Your task to perform on an android device: clear all cookies in the chrome app Image 0: 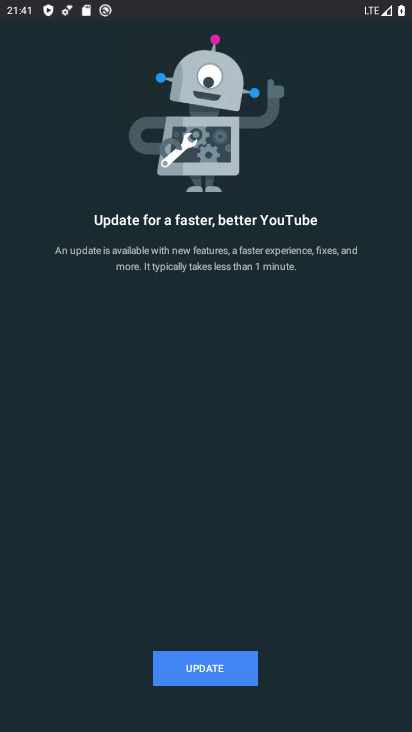
Step 0: press home button
Your task to perform on an android device: clear all cookies in the chrome app Image 1: 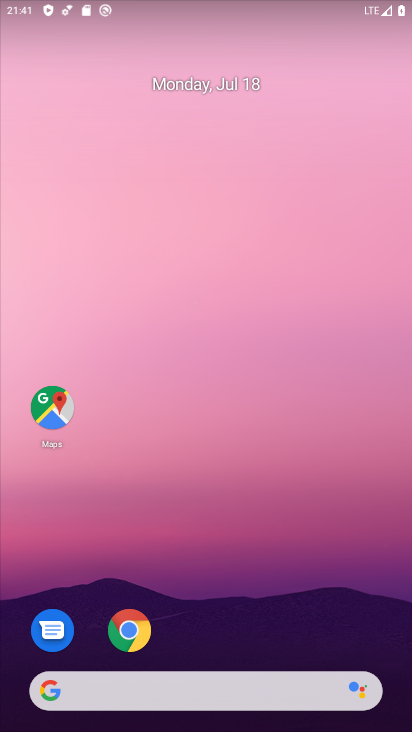
Step 1: click (131, 630)
Your task to perform on an android device: clear all cookies in the chrome app Image 2: 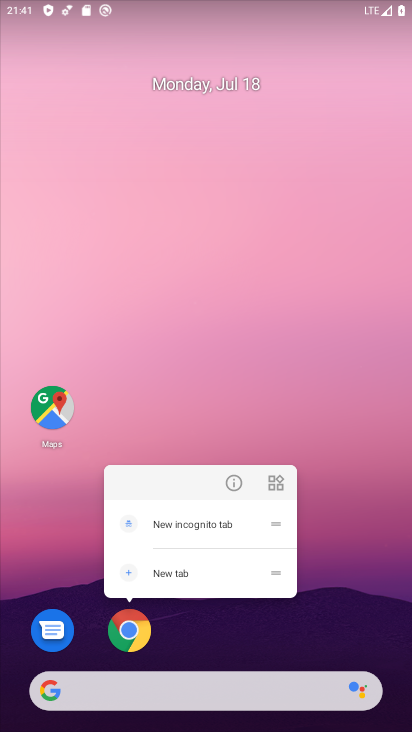
Step 2: click (139, 644)
Your task to perform on an android device: clear all cookies in the chrome app Image 3: 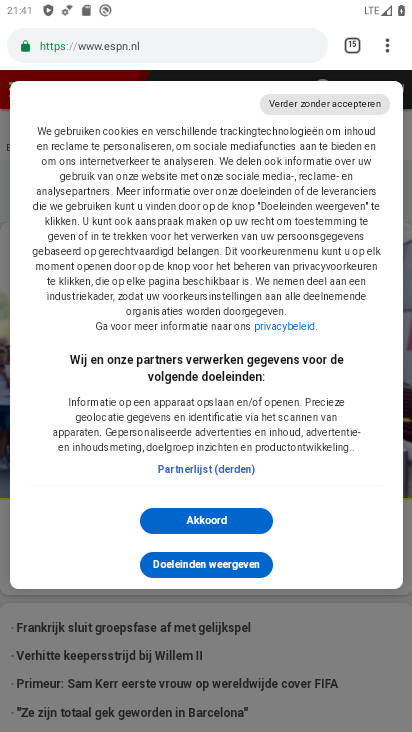
Step 3: click (394, 42)
Your task to perform on an android device: clear all cookies in the chrome app Image 4: 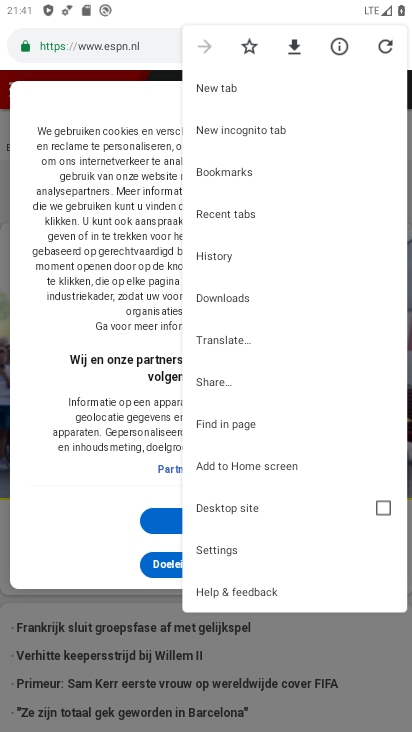
Step 4: click (251, 542)
Your task to perform on an android device: clear all cookies in the chrome app Image 5: 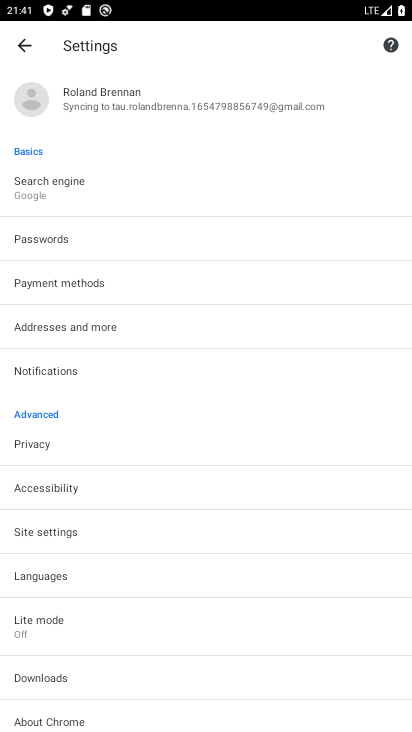
Step 5: click (73, 528)
Your task to perform on an android device: clear all cookies in the chrome app Image 6: 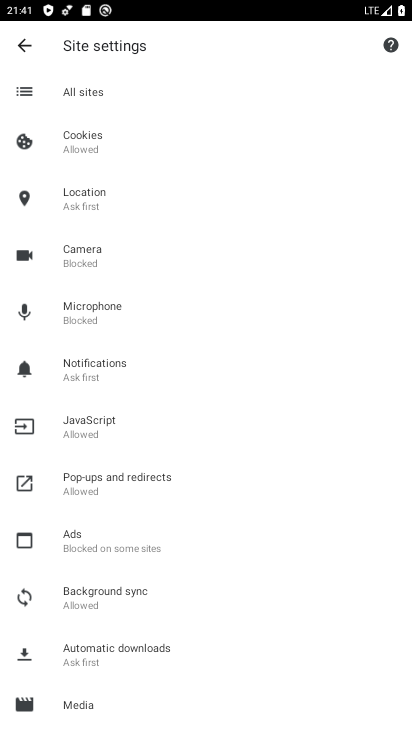
Step 6: click (96, 139)
Your task to perform on an android device: clear all cookies in the chrome app Image 7: 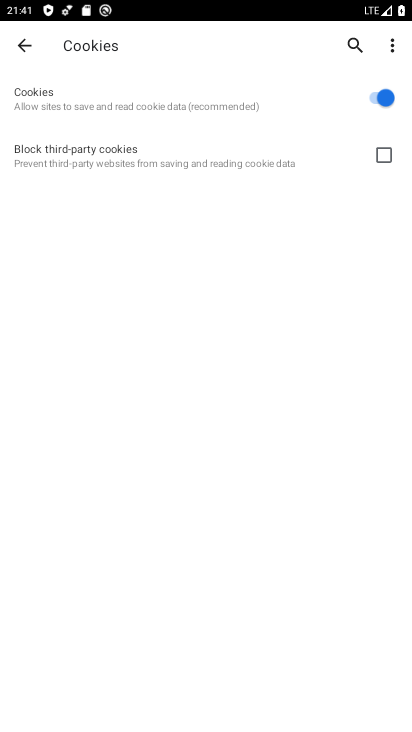
Step 7: task complete